Your task to perform on an android device: delete a single message in the gmail app Image 0: 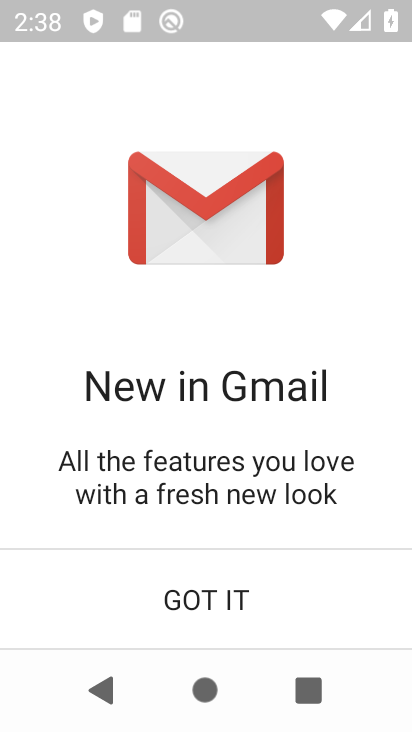
Step 0: click (216, 581)
Your task to perform on an android device: delete a single message in the gmail app Image 1: 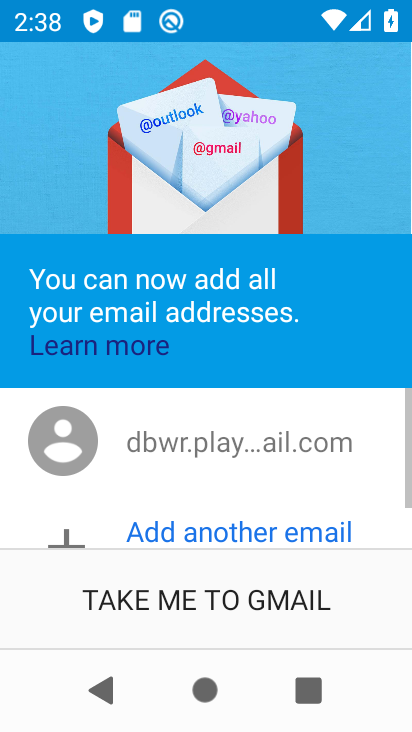
Step 1: click (202, 608)
Your task to perform on an android device: delete a single message in the gmail app Image 2: 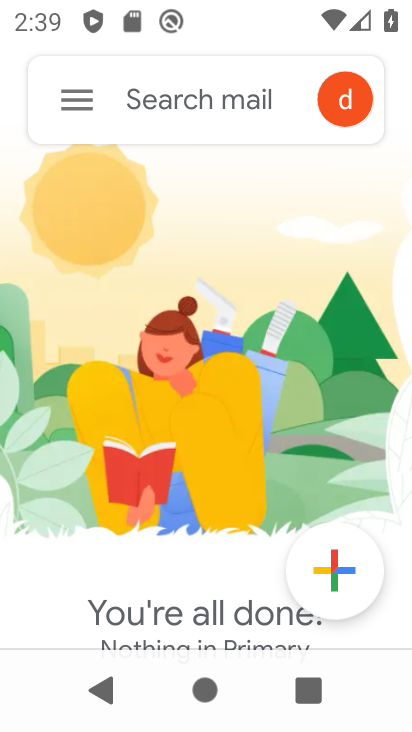
Step 2: click (95, 111)
Your task to perform on an android device: delete a single message in the gmail app Image 3: 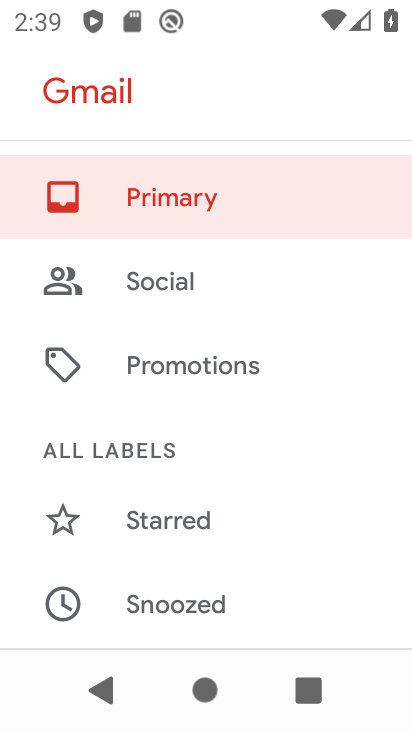
Step 3: drag from (168, 573) to (283, 152)
Your task to perform on an android device: delete a single message in the gmail app Image 4: 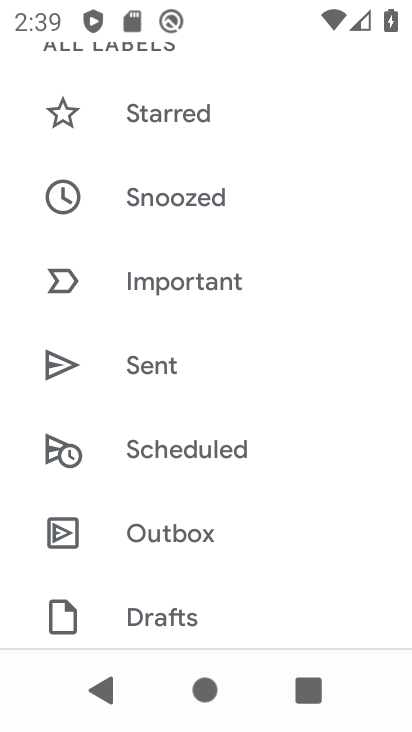
Step 4: drag from (254, 589) to (293, 277)
Your task to perform on an android device: delete a single message in the gmail app Image 5: 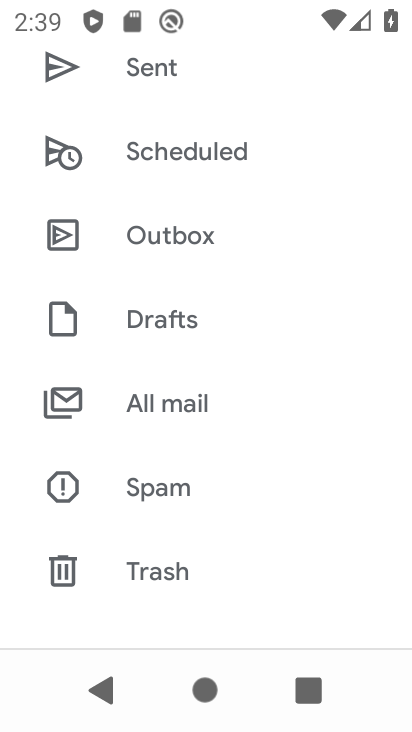
Step 5: click (217, 420)
Your task to perform on an android device: delete a single message in the gmail app Image 6: 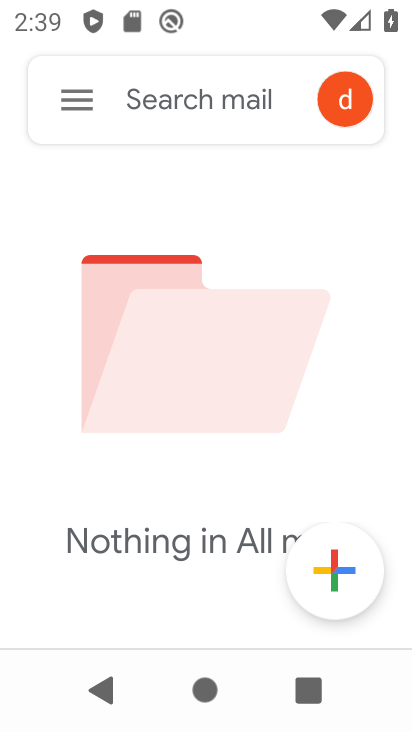
Step 6: task complete